Your task to perform on an android device: When is my next appointment? Image 0: 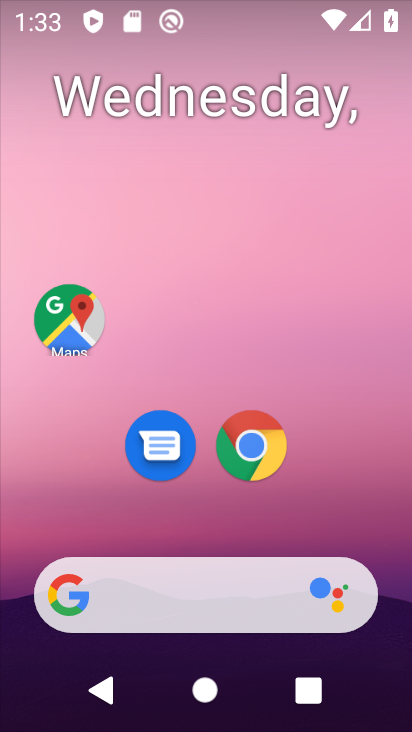
Step 0: drag from (339, 479) to (329, 234)
Your task to perform on an android device: When is my next appointment? Image 1: 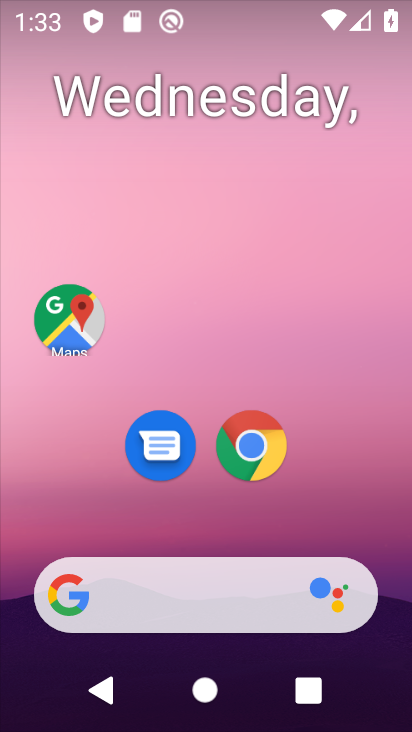
Step 1: drag from (329, 234) to (320, 0)
Your task to perform on an android device: When is my next appointment? Image 2: 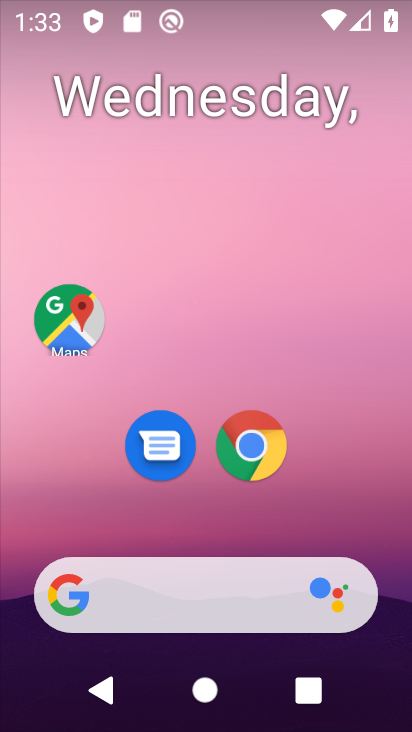
Step 2: drag from (389, 676) to (379, 210)
Your task to perform on an android device: When is my next appointment? Image 3: 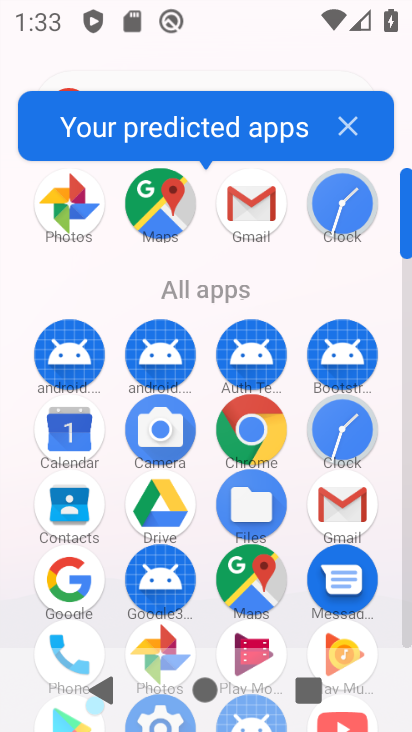
Step 3: click (76, 412)
Your task to perform on an android device: When is my next appointment? Image 4: 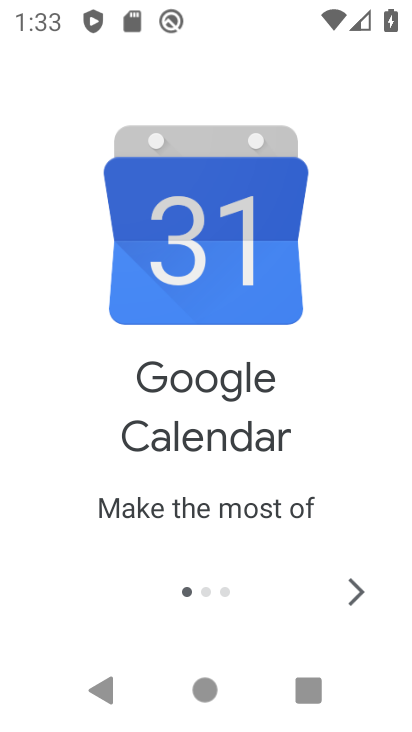
Step 4: click (344, 589)
Your task to perform on an android device: When is my next appointment? Image 5: 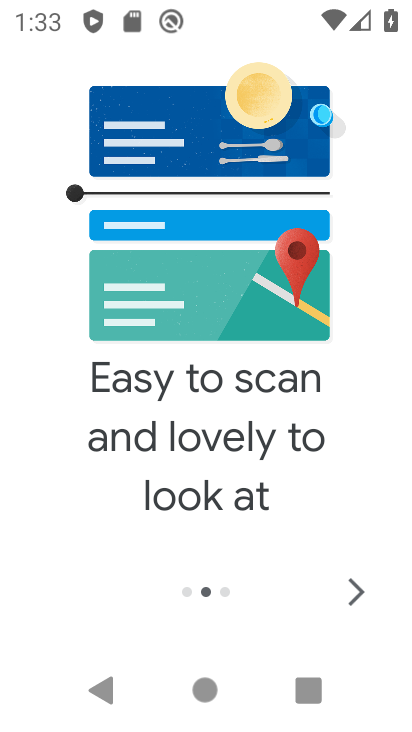
Step 5: click (344, 589)
Your task to perform on an android device: When is my next appointment? Image 6: 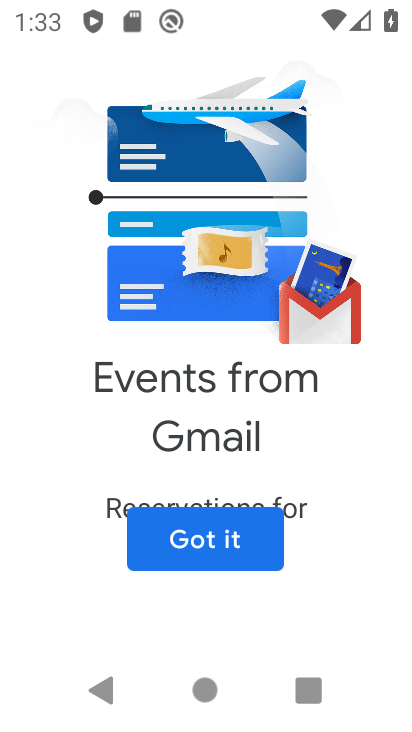
Step 6: click (245, 531)
Your task to perform on an android device: When is my next appointment? Image 7: 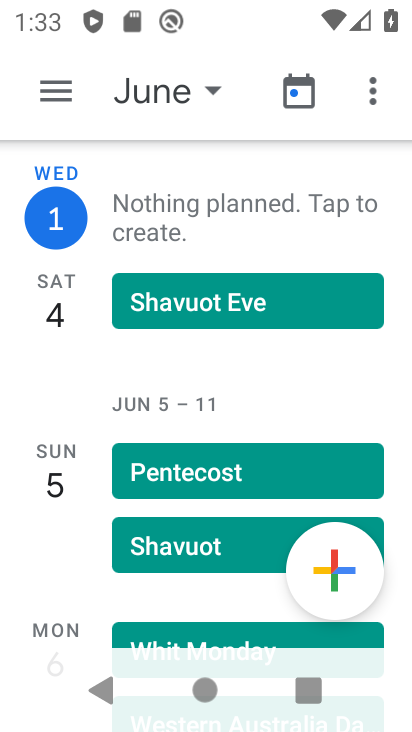
Step 7: task complete